Your task to perform on an android device: move a message to another label in the gmail app Image 0: 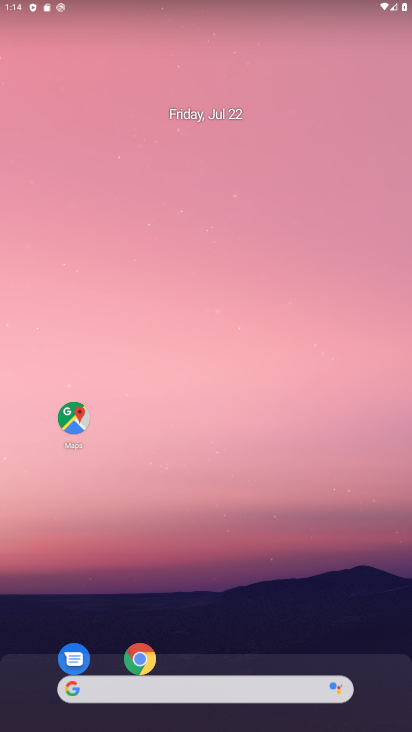
Step 0: click (229, 18)
Your task to perform on an android device: move a message to another label in the gmail app Image 1: 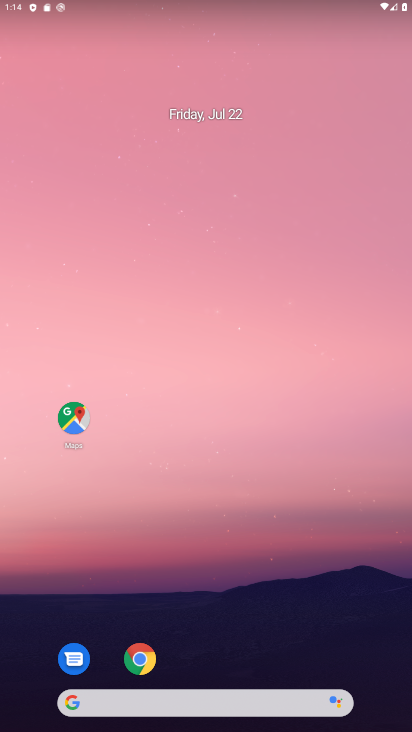
Step 1: drag from (303, 638) to (315, 187)
Your task to perform on an android device: move a message to another label in the gmail app Image 2: 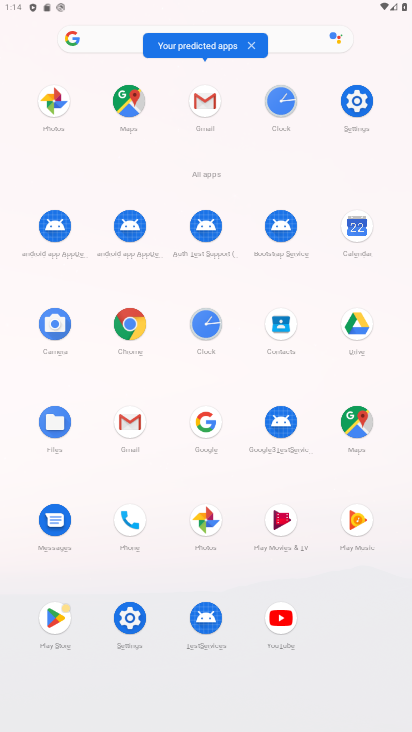
Step 2: click (127, 424)
Your task to perform on an android device: move a message to another label in the gmail app Image 3: 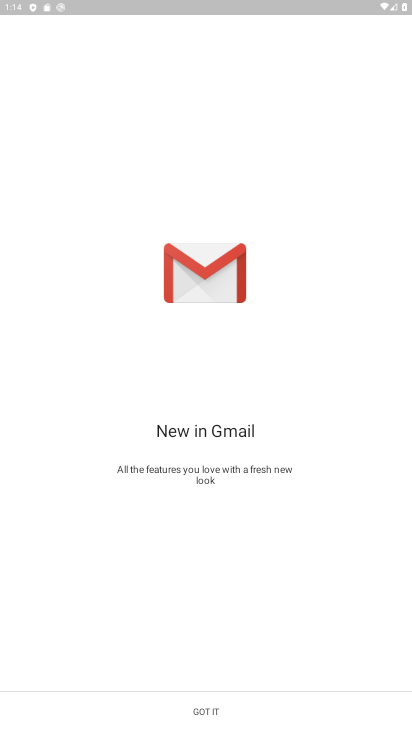
Step 3: click (357, 705)
Your task to perform on an android device: move a message to another label in the gmail app Image 4: 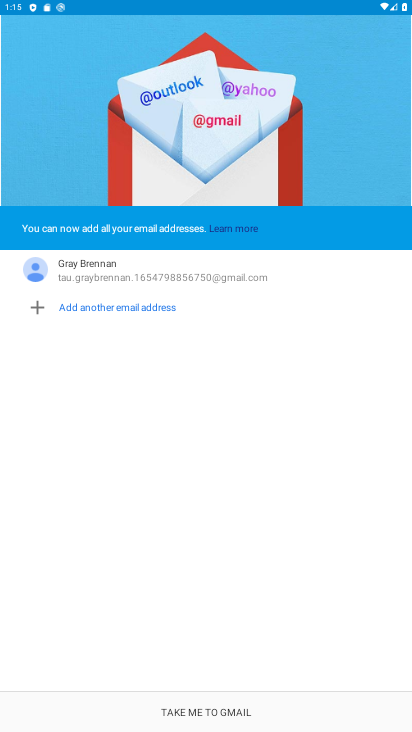
Step 4: click (354, 707)
Your task to perform on an android device: move a message to another label in the gmail app Image 5: 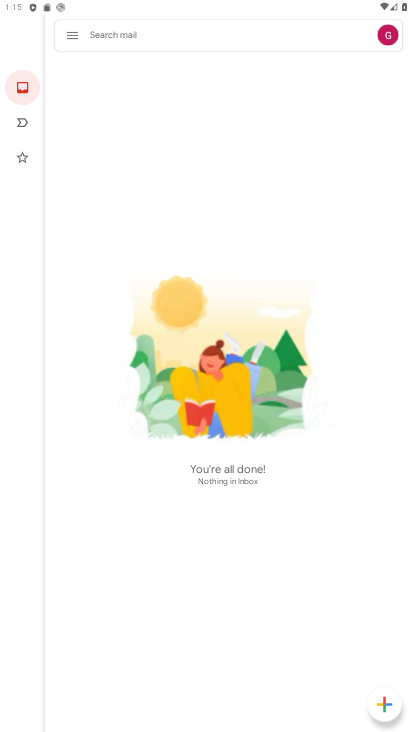
Step 5: click (76, 37)
Your task to perform on an android device: move a message to another label in the gmail app Image 6: 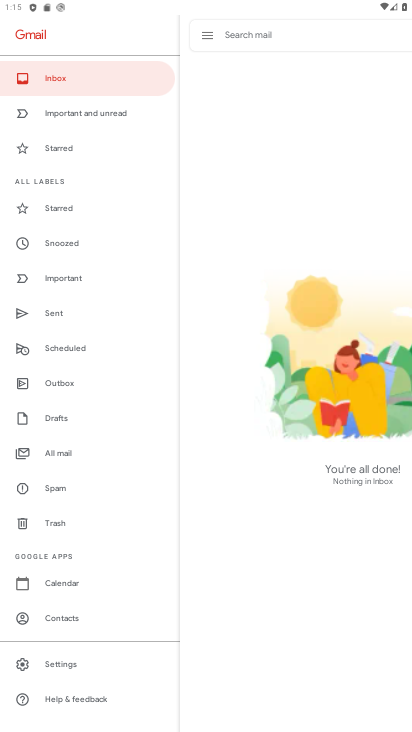
Step 6: click (66, 457)
Your task to perform on an android device: move a message to another label in the gmail app Image 7: 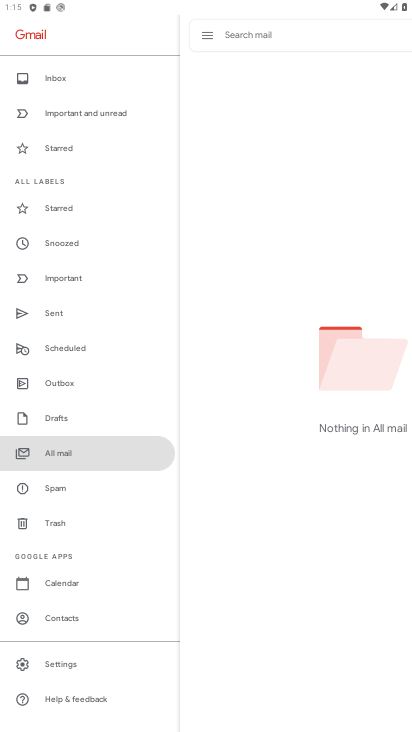
Step 7: task complete